Your task to perform on an android device: set an alarm Image 0: 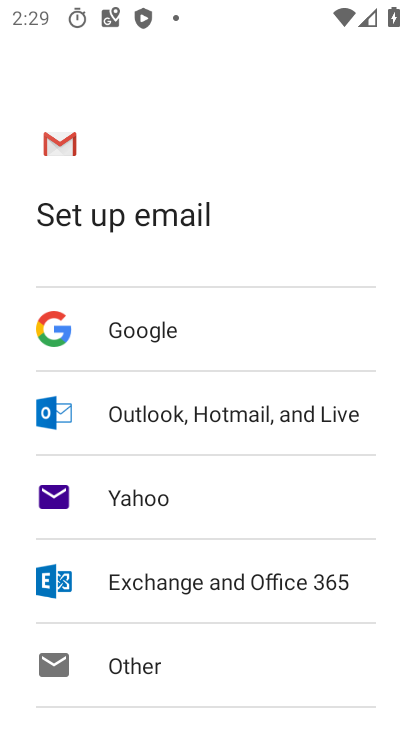
Step 0: press home button
Your task to perform on an android device: set an alarm Image 1: 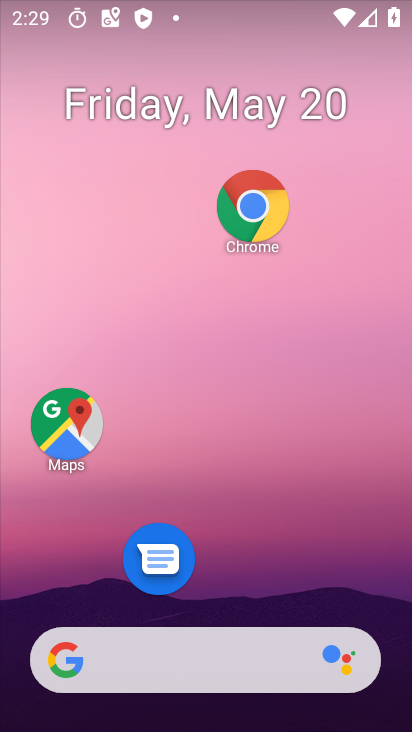
Step 1: drag from (203, 574) to (80, 20)
Your task to perform on an android device: set an alarm Image 2: 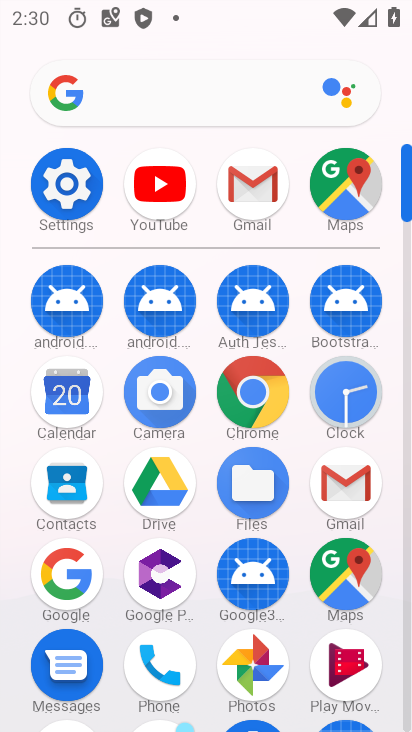
Step 2: click (338, 400)
Your task to perform on an android device: set an alarm Image 3: 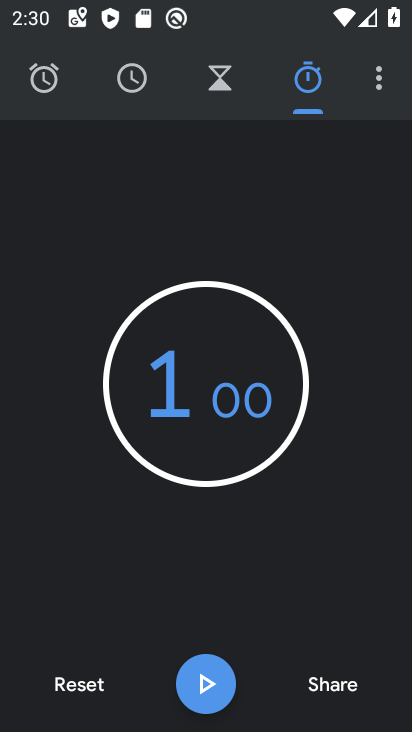
Step 3: click (50, 79)
Your task to perform on an android device: set an alarm Image 4: 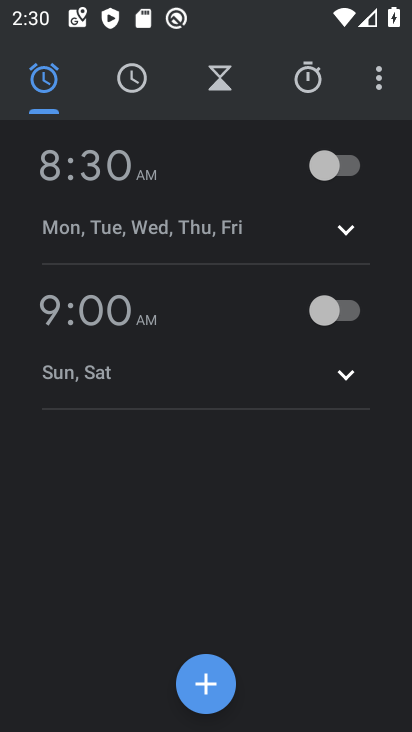
Step 4: click (203, 670)
Your task to perform on an android device: set an alarm Image 5: 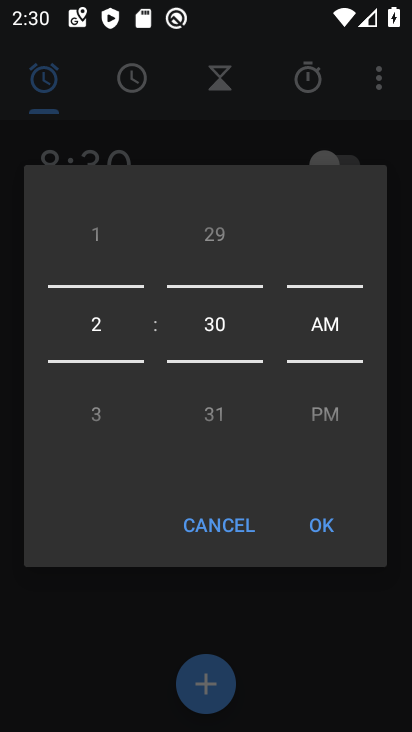
Step 5: click (197, 681)
Your task to perform on an android device: set an alarm Image 6: 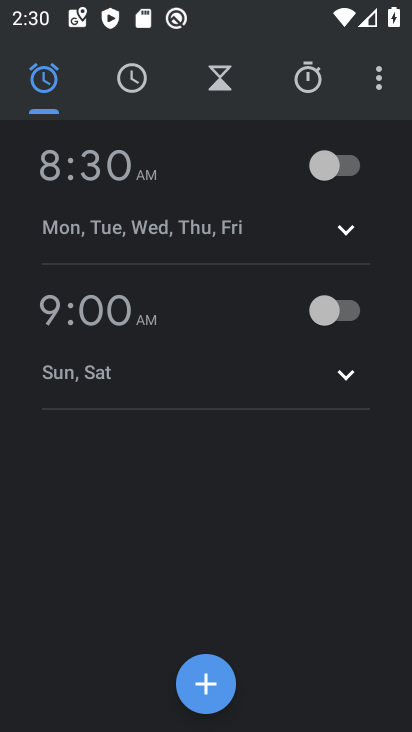
Step 6: click (227, 674)
Your task to perform on an android device: set an alarm Image 7: 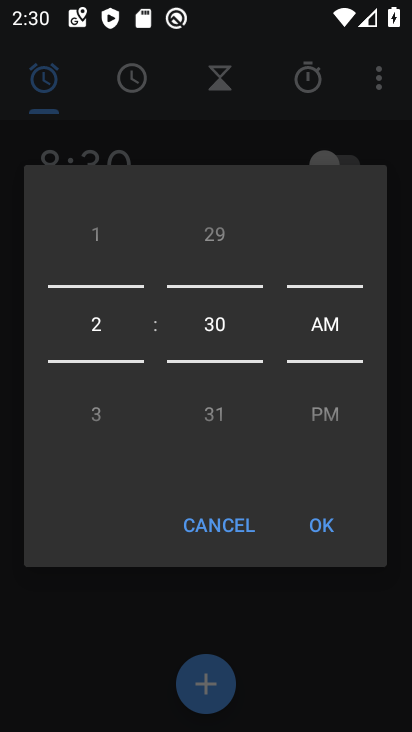
Step 7: click (323, 535)
Your task to perform on an android device: set an alarm Image 8: 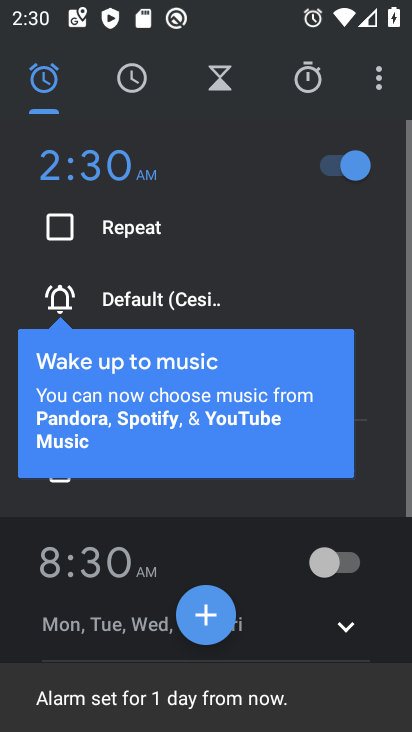
Step 8: task complete